Your task to perform on an android device: install app "Google Maps" Image 0: 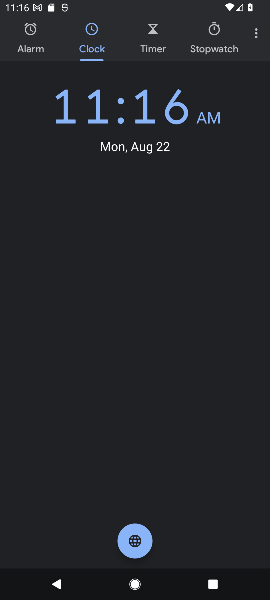
Step 0: press home button
Your task to perform on an android device: install app "Google Maps" Image 1: 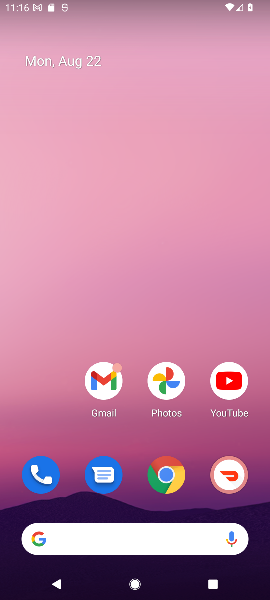
Step 1: drag from (121, 491) to (82, 108)
Your task to perform on an android device: install app "Google Maps" Image 2: 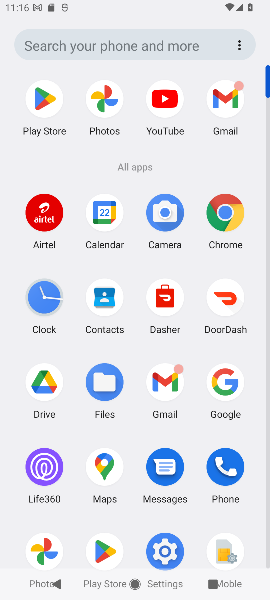
Step 2: click (42, 95)
Your task to perform on an android device: install app "Google Maps" Image 3: 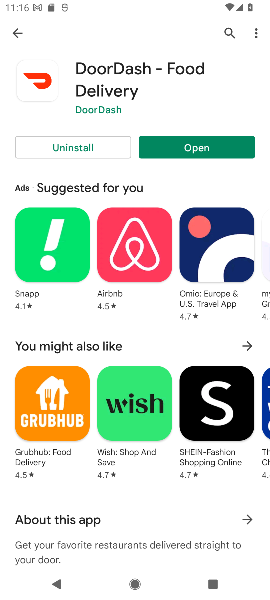
Step 3: click (15, 30)
Your task to perform on an android device: install app "Google Maps" Image 4: 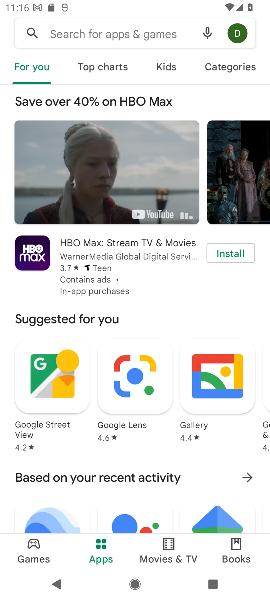
Step 4: click (65, 30)
Your task to perform on an android device: install app "Google Maps" Image 5: 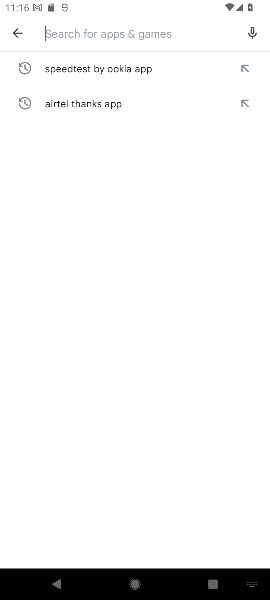
Step 5: type "Google Maps"
Your task to perform on an android device: install app "Google Maps" Image 6: 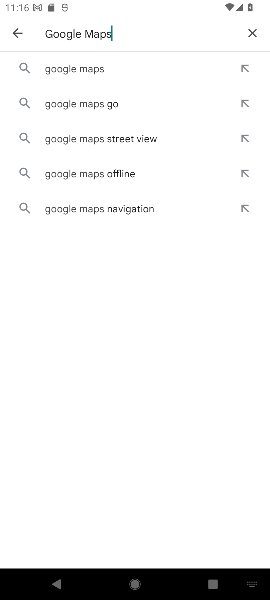
Step 6: click (97, 71)
Your task to perform on an android device: install app "Google Maps" Image 7: 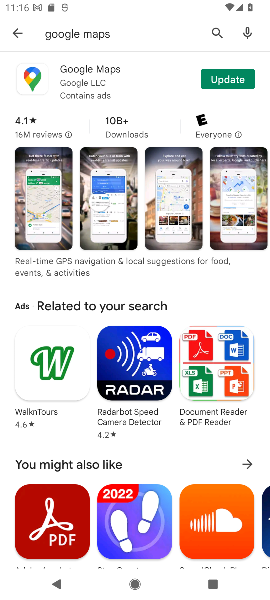
Step 7: task complete